Your task to perform on an android device: show emergency info Image 0: 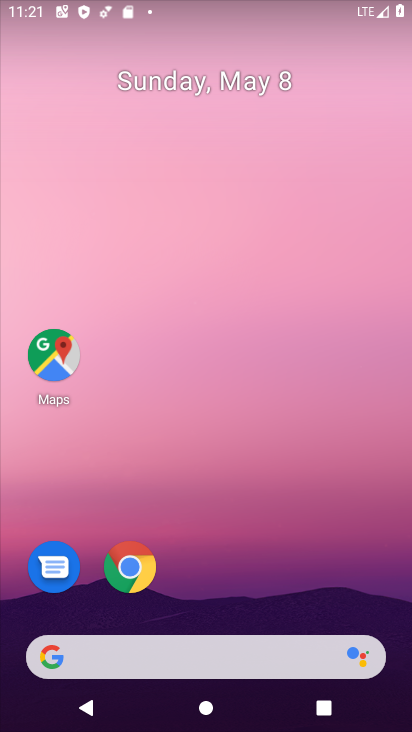
Step 0: drag from (206, 595) to (227, 18)
Your task to perform on an android device: show emergency info Image 1: 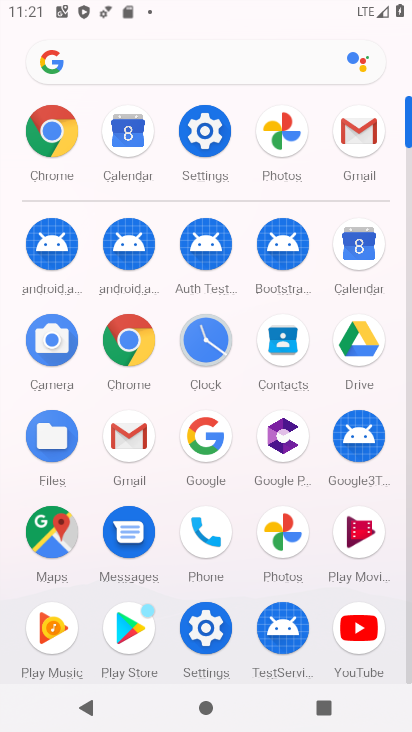
Step 1: click (204, 620)
Your task to perform on an android device: show emergency info Image 2: 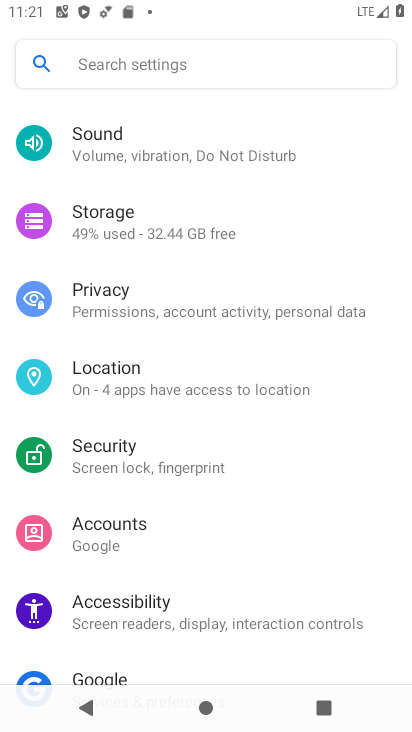
Step 2: drag from (177, 640) to (236, 7)
Your task to perform on an android device: show emergency info Image 3: 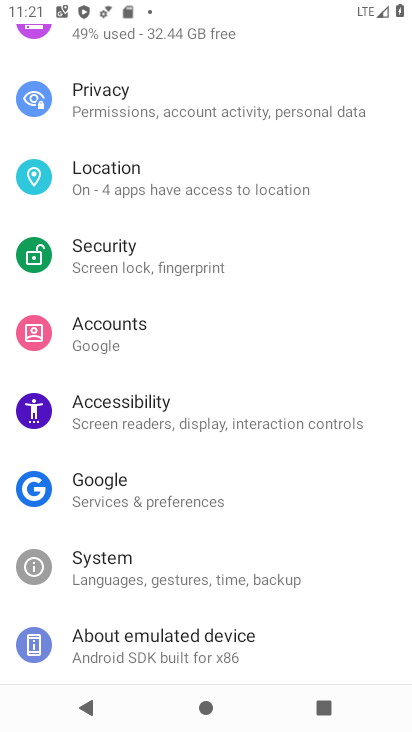
Step 3: click (253, 648)
Your task to perform on an android device: show emergency info Image 4: 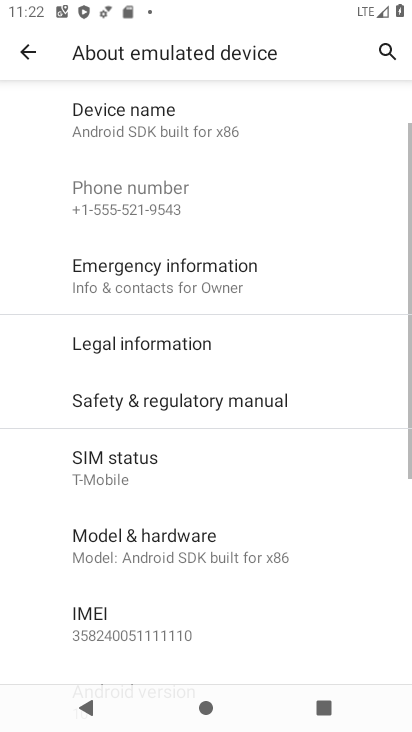
Step 4: click (182, 289)
Your task to perform on an android device: show emergency info Image 5: 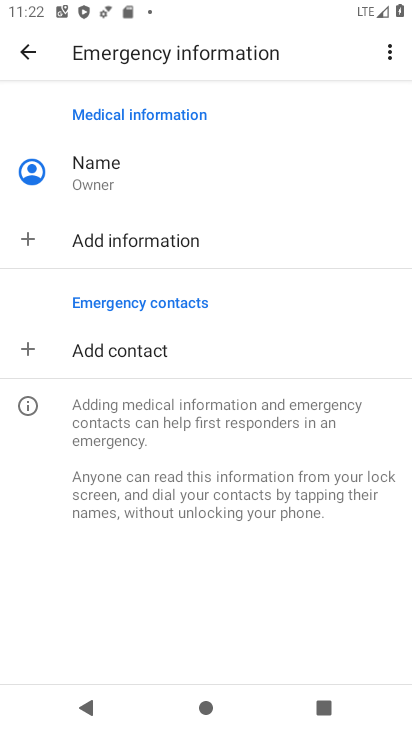
Step 5: task complete